Your task to perform on an android device: toggle location history Image 0: 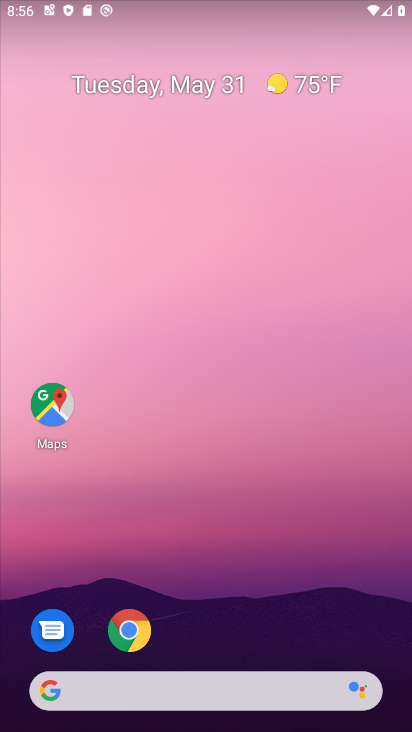
Step 0: drag from (196, 686) to (255, 149)
Your task to perform on an android device: toggle location history Image 1: 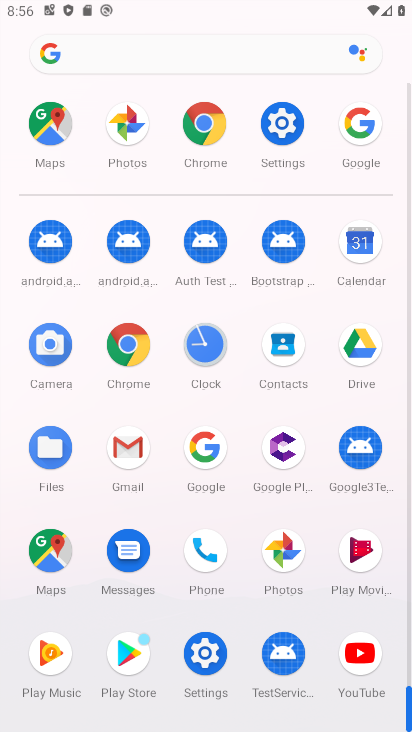
Step 1: click (297, 138)
Your task to perform on an android device: toggle location history Image 2: 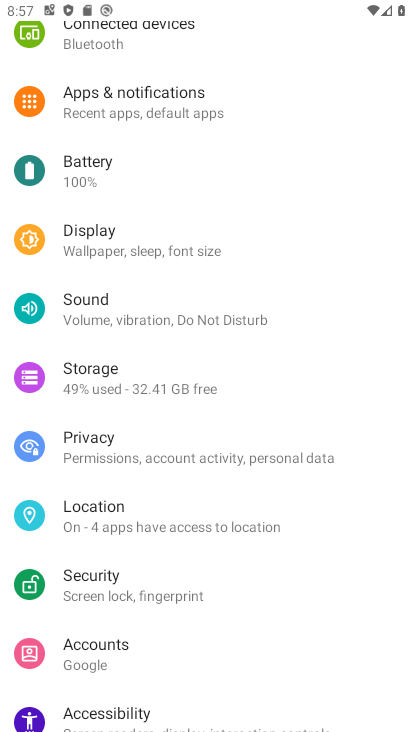
Step 2: drag from (175, 504) to (197, 263)
Your task to perform on an android device: toggle location history Image 3: 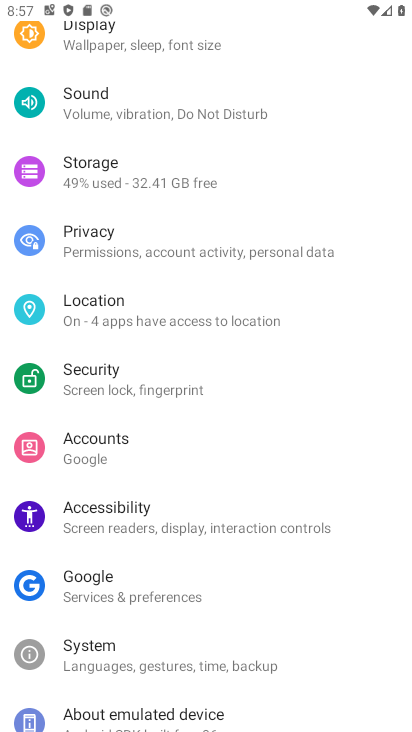
Step 3: click (182, 325)
Your task to perform on an android device: toggle location history Image 4: 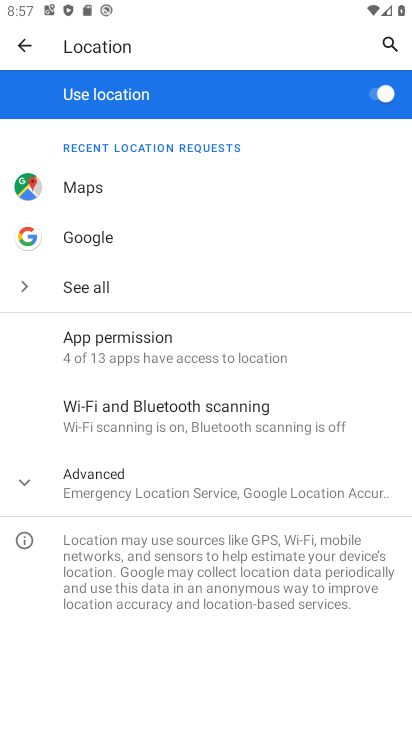
Step 4: click (123, 483)
Your task to perform on an android device: toggle location history Image 5: 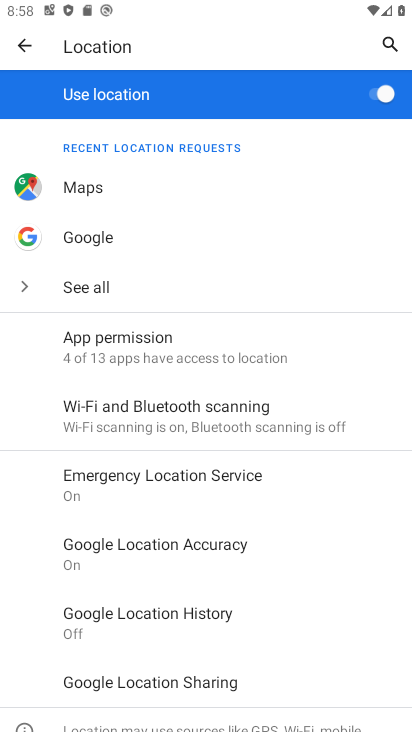
Step 5: click (217, 623)
Your task to perform on an android device: toggle location history Image 6: 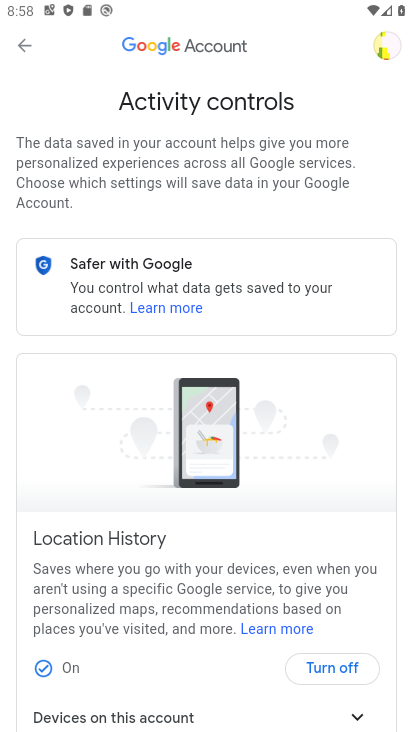
Step 6: drag from (212, 550) to (229, 350)
Your task to perform on an android device: toggle location history Image 7: 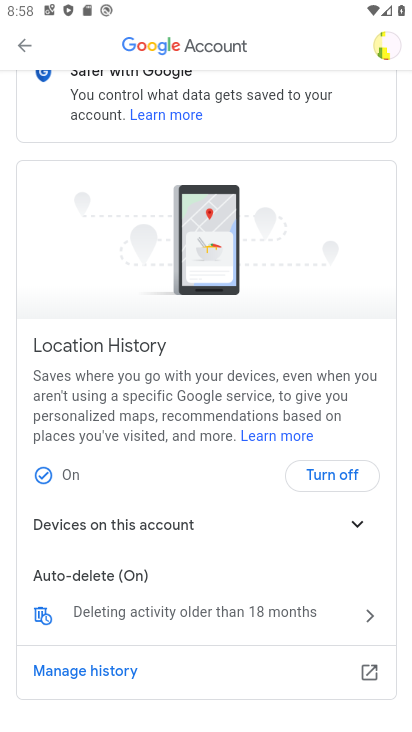
Step 7: click (351, 480)
Your task to perform on an android device: toggle location history Image 8: 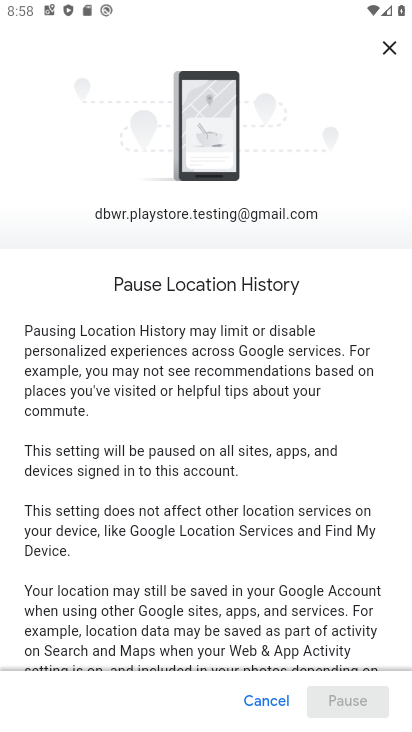
Step 8: drag from (313, 477) to (334, 92)
Your task to perform on an android device: toggle location history Image 9: 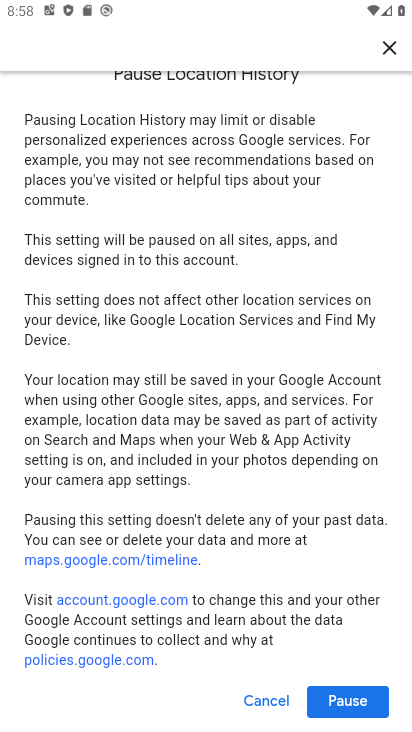
Step 9: click (352, 703)
Your task to perform on an android device: toggle location history Image 10: 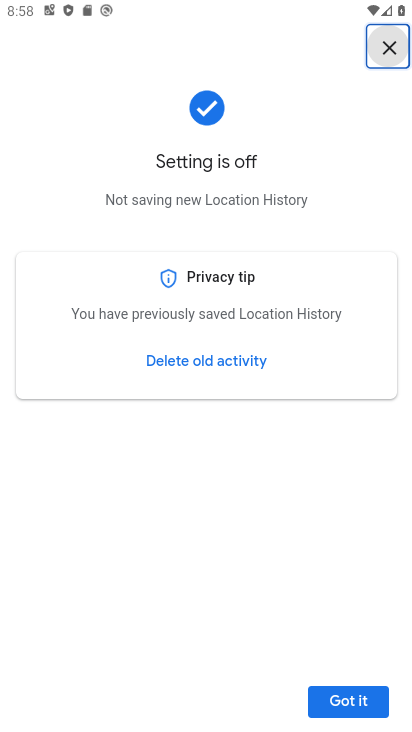
Step 10: click (362, 718)
Your task to perform on an android device: toggle location history Image 11: 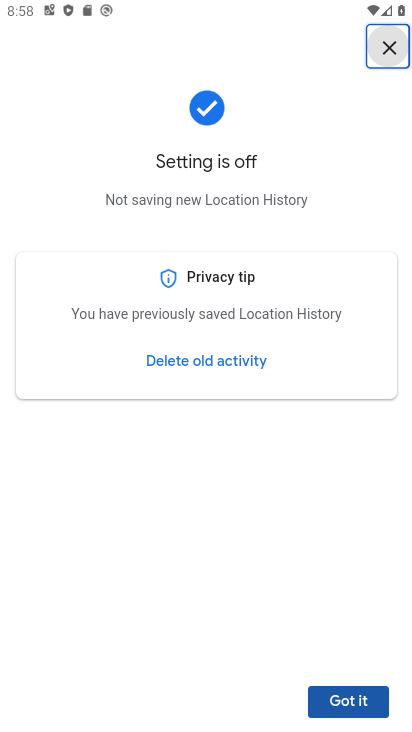
Step 11: task complete